Your task to perform on an android device: turn off sleep mode Image 0: 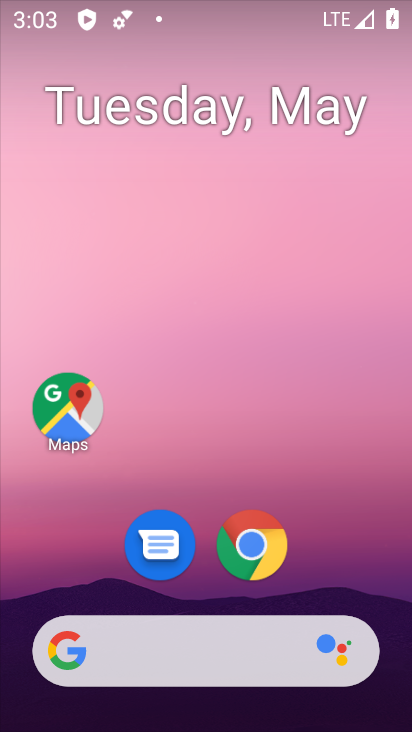
Step 0: drag from (341, 567) to (333, 152)
Your task to perform on an android device: turn off sleep mode Image 1: 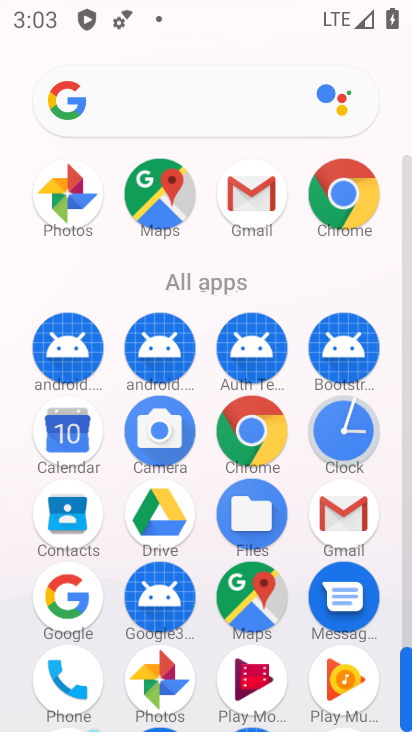
Step 1: drag from (216, 554) to (192, 273)
Your task to perform on an android device: turn off sleep mode Image 2: 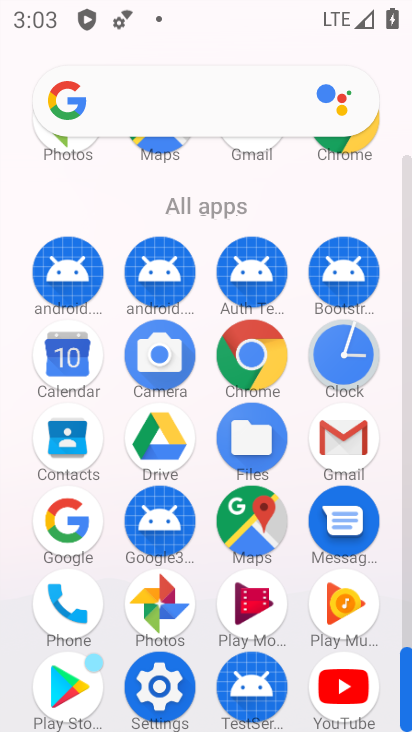
Step 2: click (170, 662)
Your task to perform on an android device: turn off sleep mode Image 3: 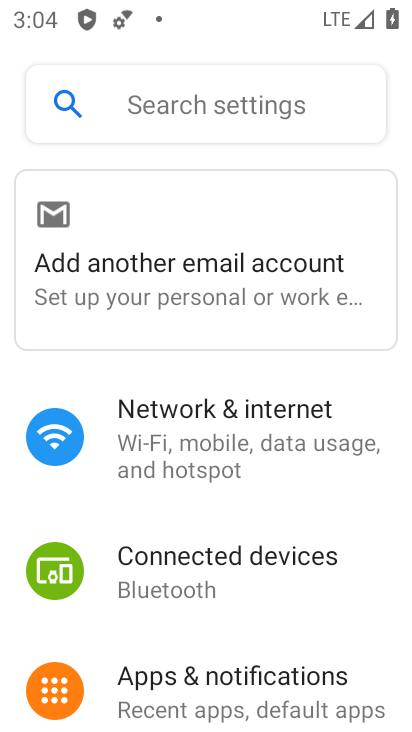
Step 3: drag from (272, 613) to (251, 255)
Your task to perform on an android device: turn off sleep mode Image 4: 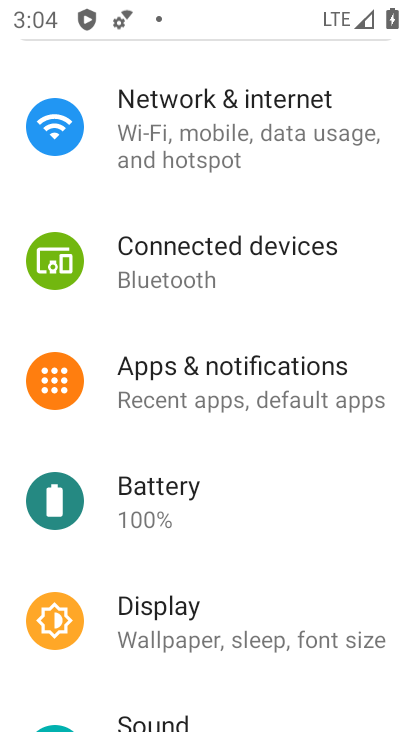
Step 4: click (243, 632)
Your task to perform on an android device: turn off sleep mode Image 5: 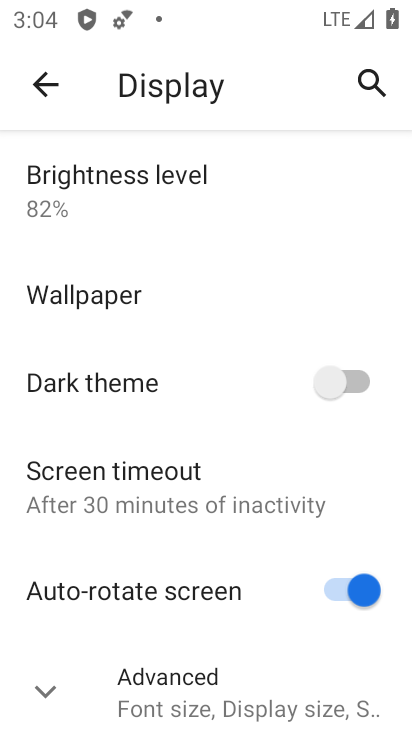
Step 5: drag from (243, 632) to (231, 302)
Your task to perform on an android device: turn off sleep mode Image 6: 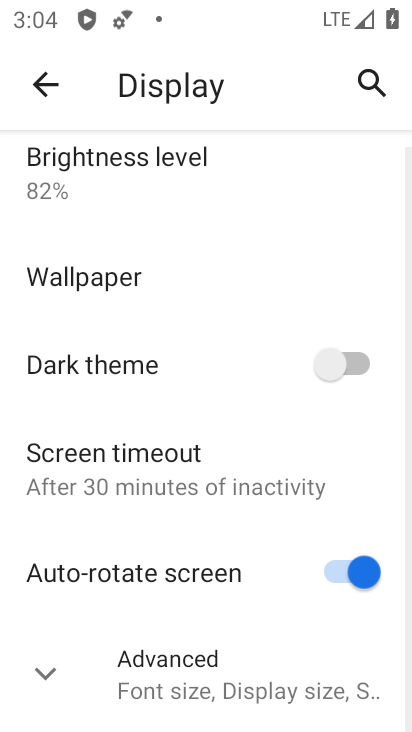
Step 6: click (38, 668)
Your task to perform on an android device: turn off sleep mode Image 7: 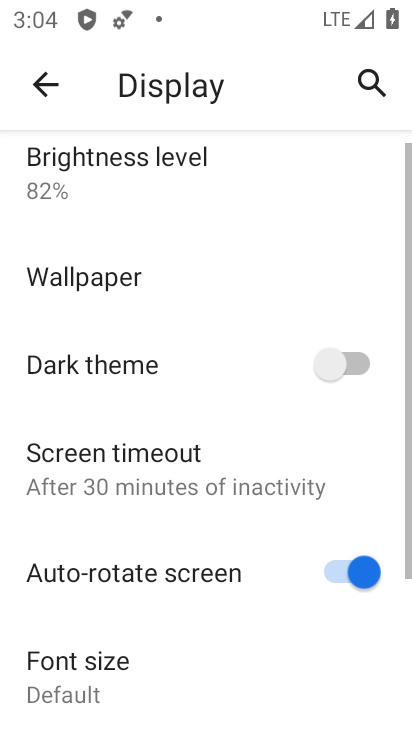
Step 7: task complete